Your task to perform on an android device: make emails show in primary in the gmail app Image 0: 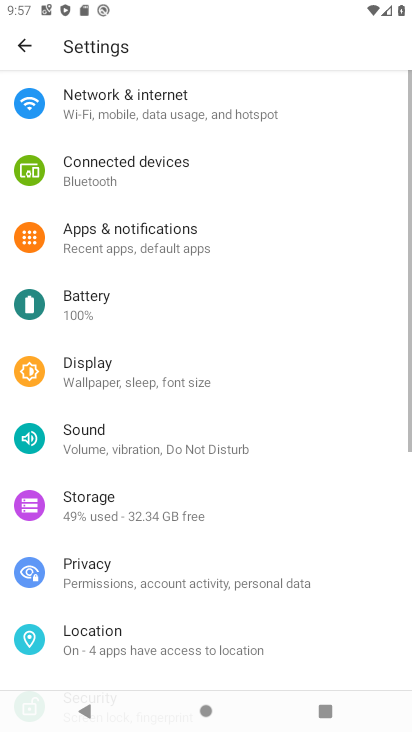
Step 0: press home button
Your task to perform on an android device: make emails show in primary in the gmail app Image 1: 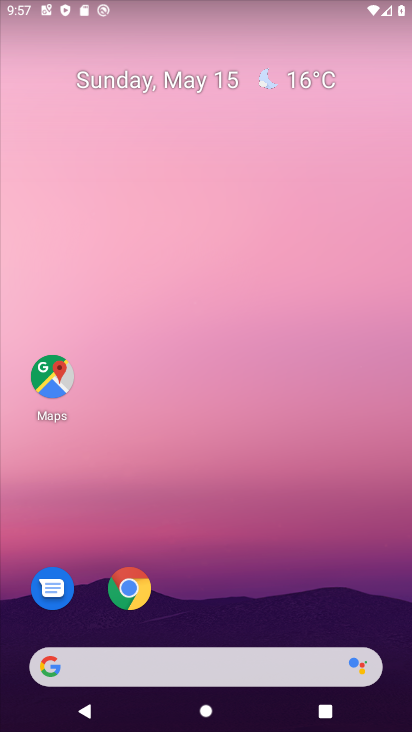
Step 1: drag from (226, 152) to (246, 8)
Your task to perform on an android device: make emails show in primary in the gmail app Image 2: 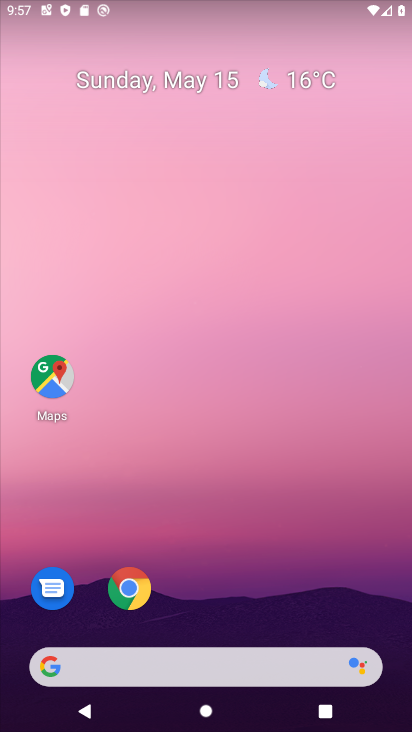
Step 2: drag from (208, 543) to (236, 22)
Your task to perform on an android device: make emails show in primary in the gmail app Image 3: 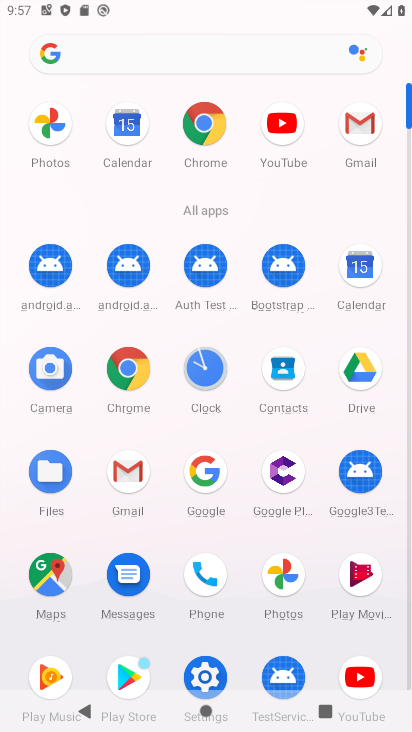
Step 3: click (348, 111)
Your task to perform on an android device: make emails show in primary in the gmail app Image 4: 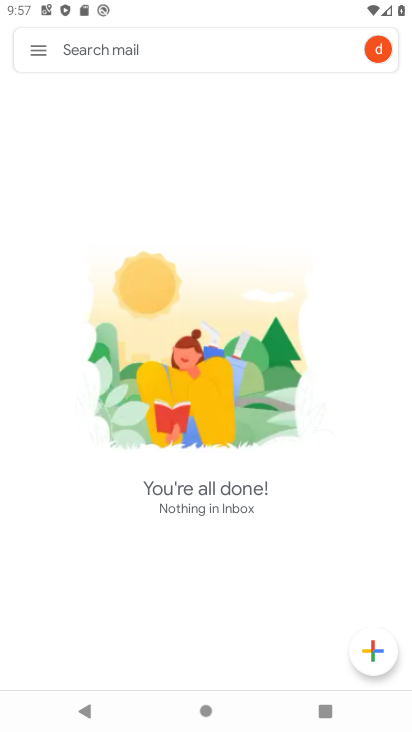
Step 4: click (36, 54)
Your task to perform on an android device: make emails show in primary in the gmail app Image 5: 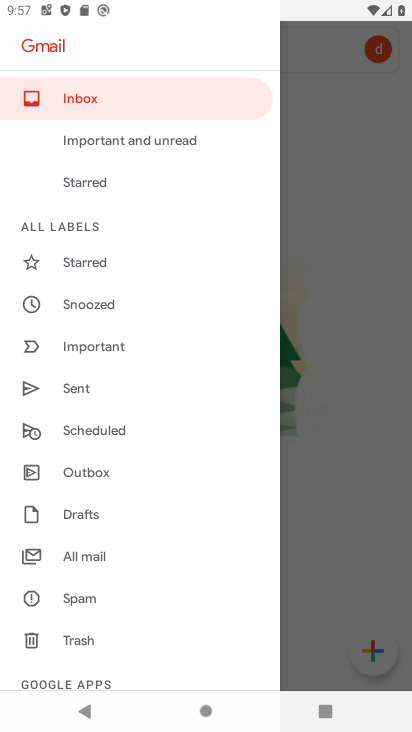
Step 5: drag from (116, 622) to (211, 3)
Your task to perform on an android device: make emails show in primary in the gmail app Image 6: 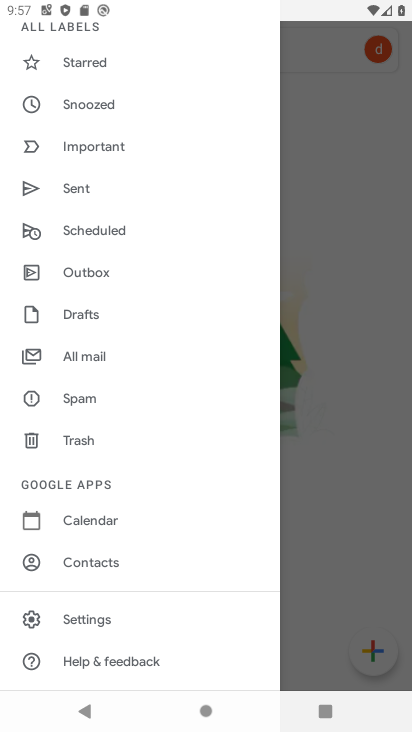
Step 6: click (83, 627)
Your task to perform on an android device: make emails show in primary in the gmail app Image 7: 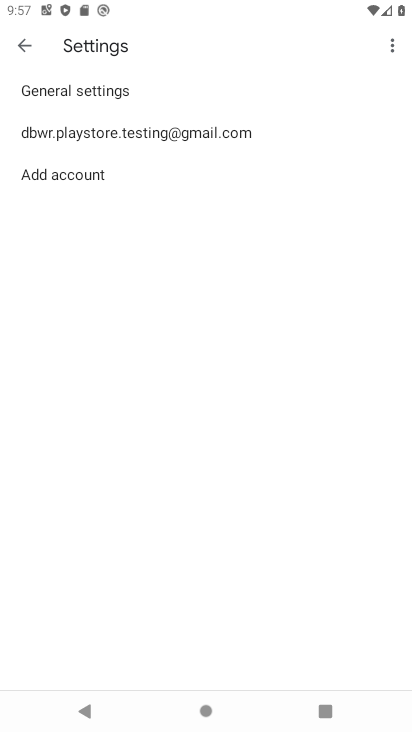
Step 7: click (157, 137)
Your task to perform on an android device: make emails show in primary in the gmail app Image 8: 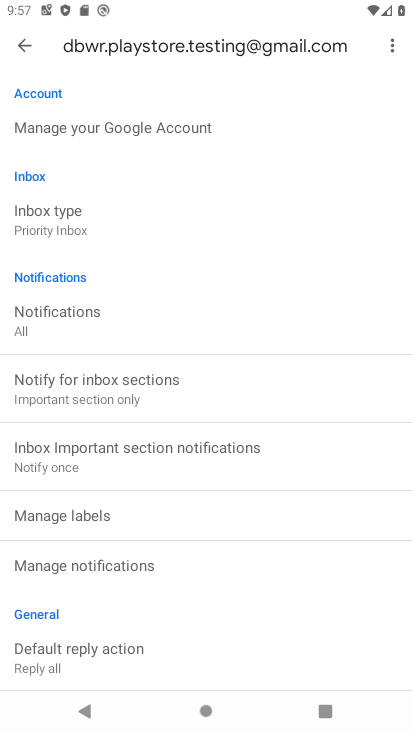
Step 8: click (109, 216)
Your task to perform on an android device: make emails show in primary in the gmail app Image 9: 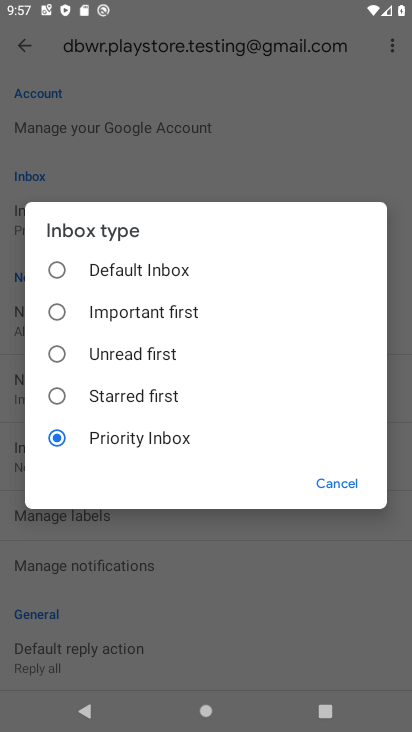
Step 9: click (121, 569)
Your task to perform on an android device: make emails show in primary in the gmail app Image 10: 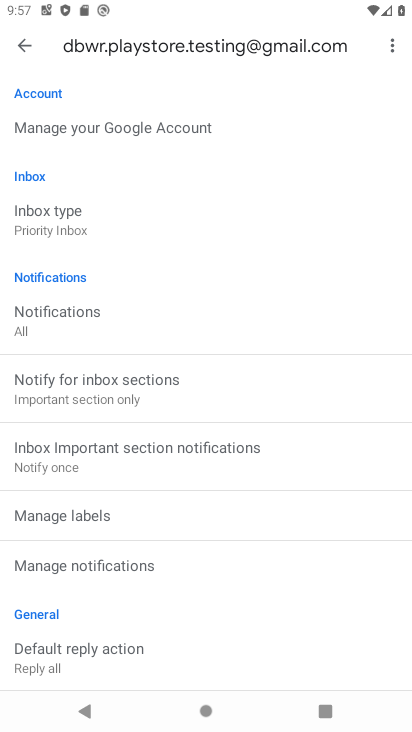
Step 10: click (83, 231)
Your task to perform on an android device: make emails show in primary in the gmail app Image 11: 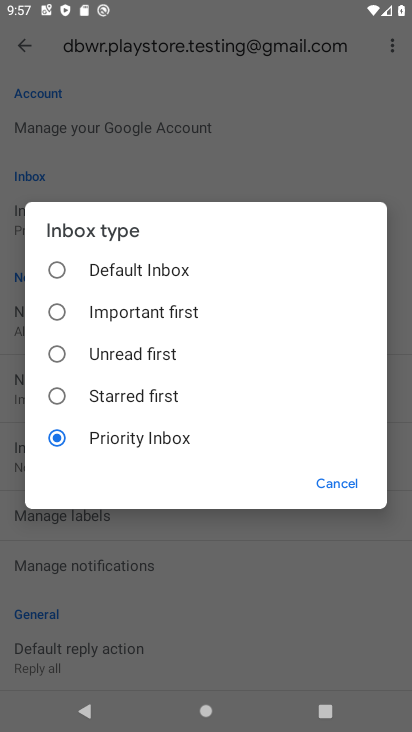
Step 11: click (300, 550)
Your task to perform on an android device: make emails show in primary in the gmail app Image 12: 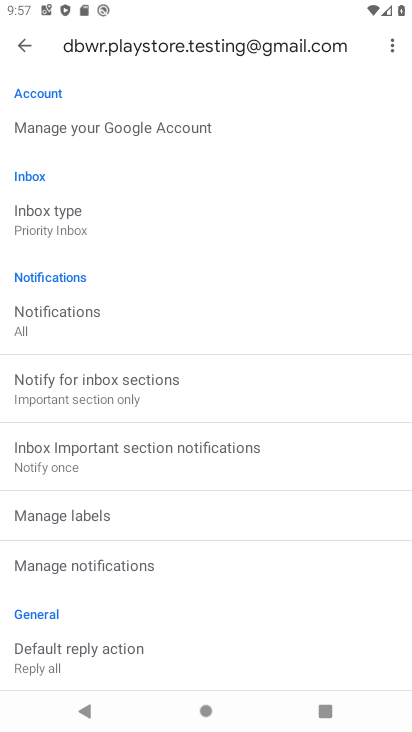
Step 12: click (68, 217)
Your task to perform on an android device: make emails show in primary in the gmail app Image 13: 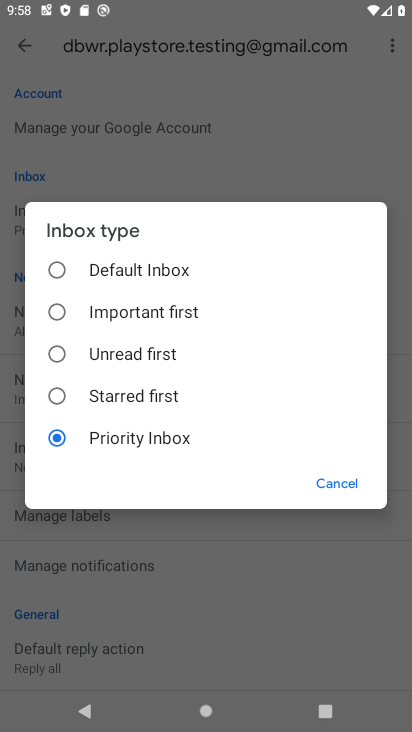
Step 13: click (58, 267)
Your task to perform on an android device: make emails show in primary in the gmail app Image 14: 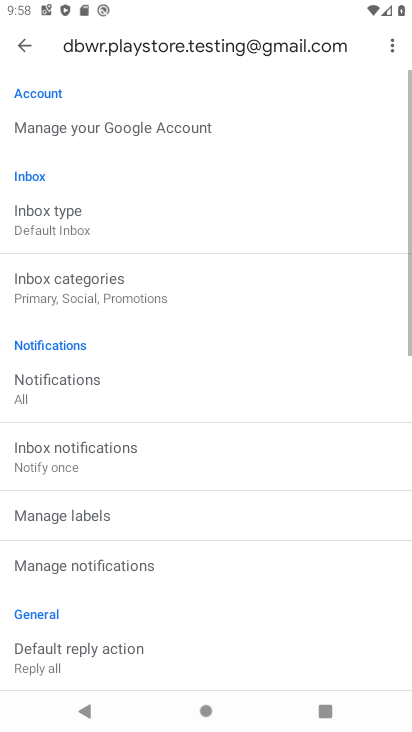
Step 14: task complete